Your task to perform on an android device: check out phone information Image 0: 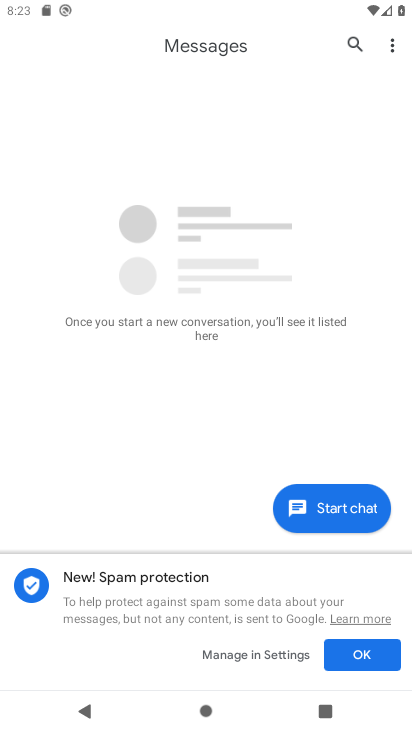
Step 0: press back button
Your task to perform on an android device: check out phone information Image 1: 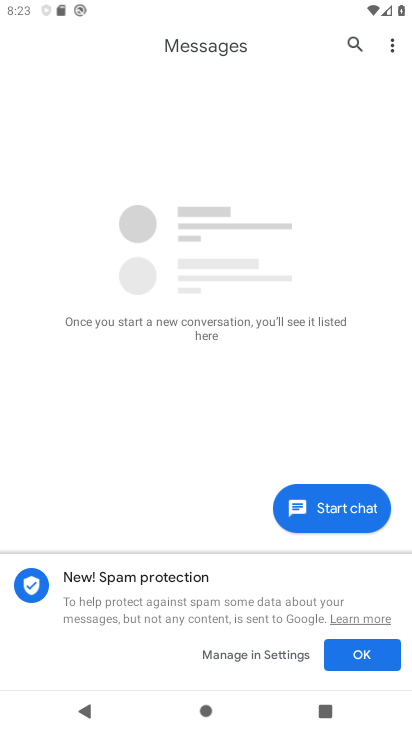
Step 1: press back button
Your task to perform on an android device: check out phone information Image 2: 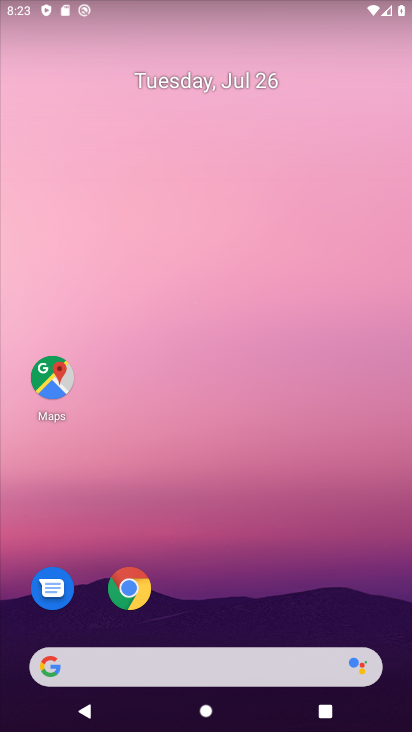
Step 2: click (224, 149)
Your task to perform on an android device: check out phone information Image 3: 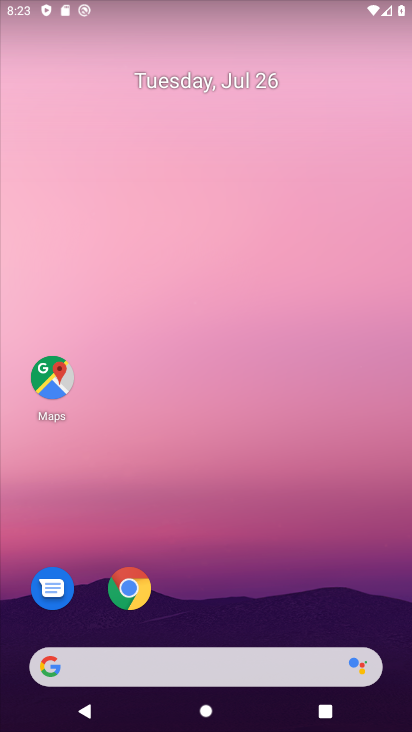
Step 3: drag from (214, 604) to (210, 122)
Your task to perform on an android device: check out phone information Image 4: 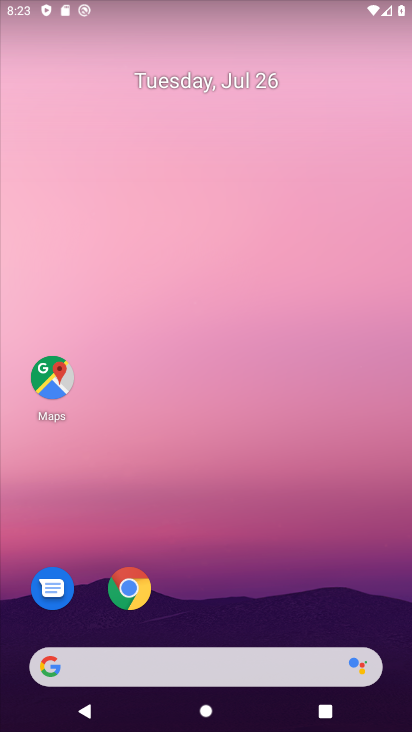
Step 4: drag from (217, 507) to (181, 113)
Your task to perform on an android device: check out phone information Image 5: 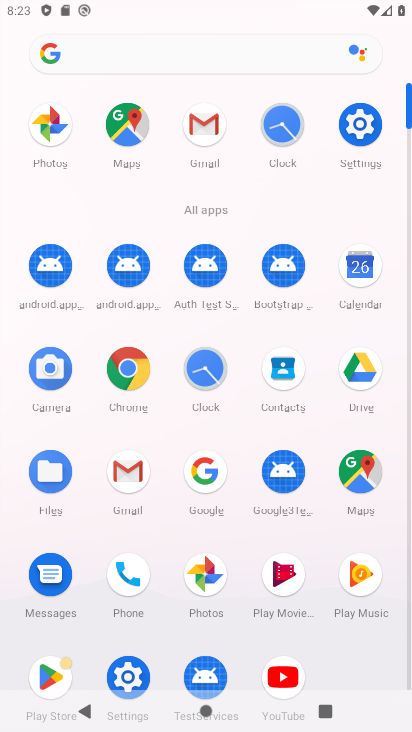
Step 5: drag from (254, 499) to (246, 67)
Your task to perform on an android device: check out phone information Image 6: 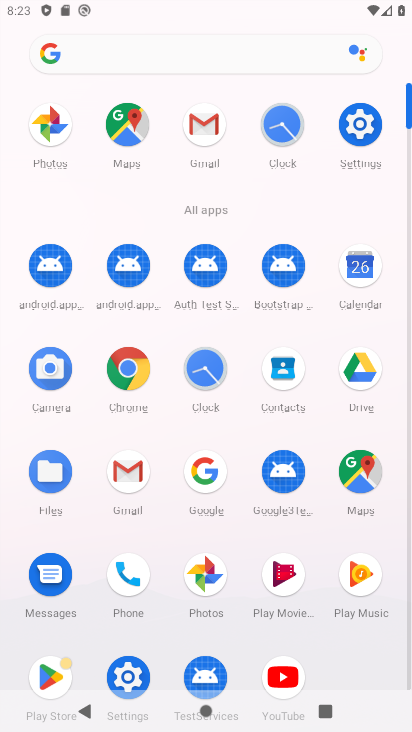
Step 6: click (356, 127)
Your task to perform on an android device: check out phone information Image 7: 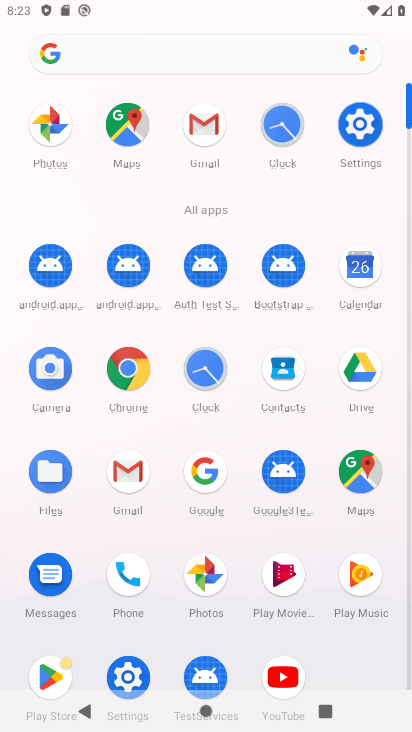
Step 7: click (359, 130)
Your task to perform on an android device: check out phone information Image 8: 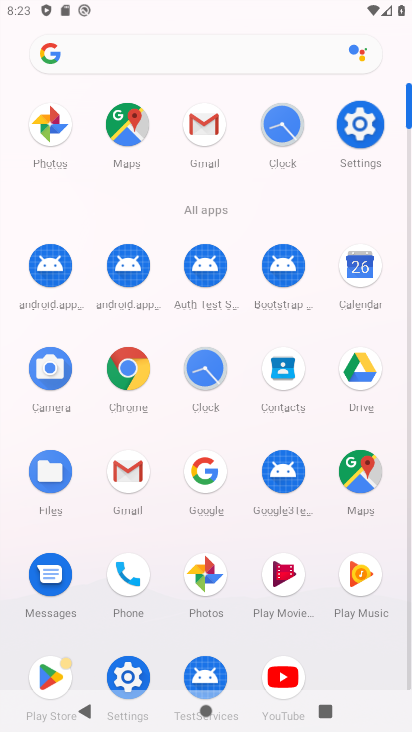
Step 8: click (365, 136)
Your task to perform on an android device: check out phone information Image 9: 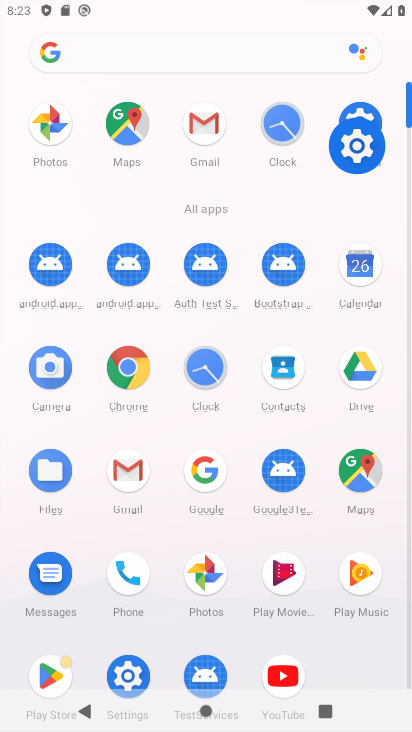
Step 9: click (366, 133)
Your task to perform on an android device: check out phone information Image 10: 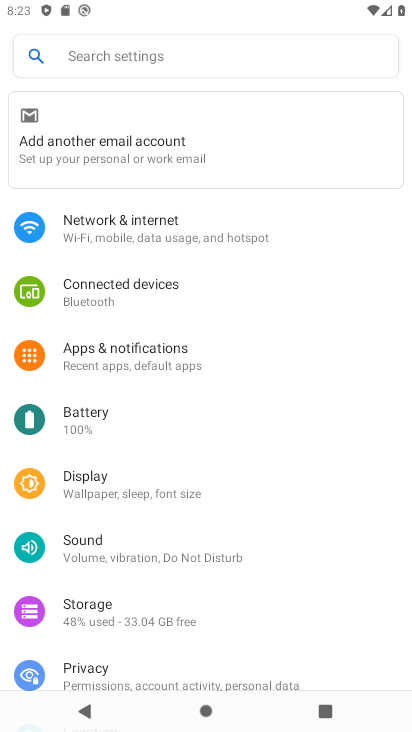
Step 10: drag from (179, 511) to (175, 216)
Your task to perform on an android device: check out phone information Image 11: 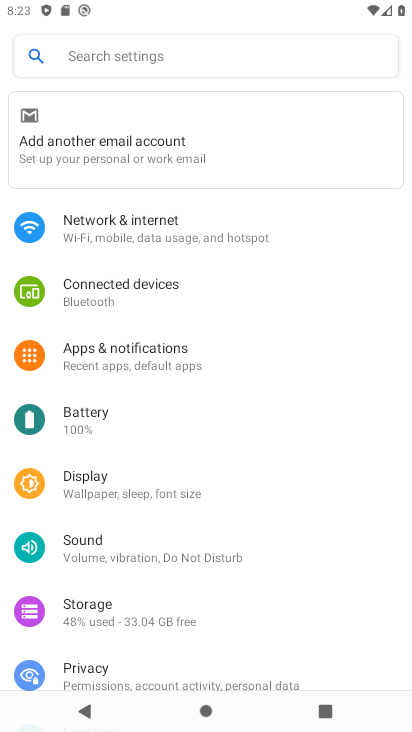
Step 11: drag from (169, 504) to (111, 176)
Your task to perform on an android device: check out phone information Image 12: 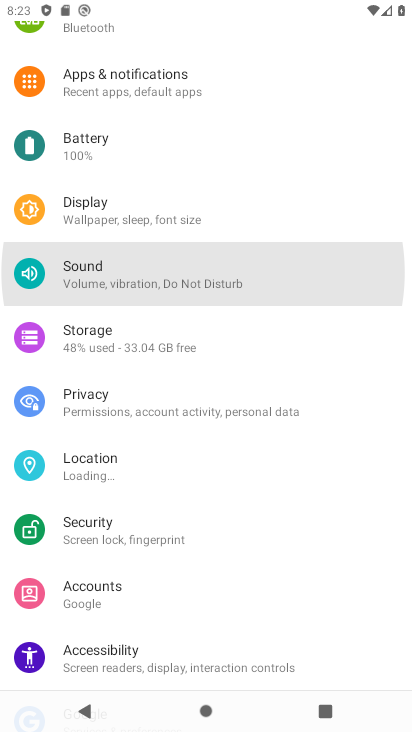
Step 12: drag from (143, 421) to (143, 210)
Your task to perform on an android device: check out phone information Image 13: 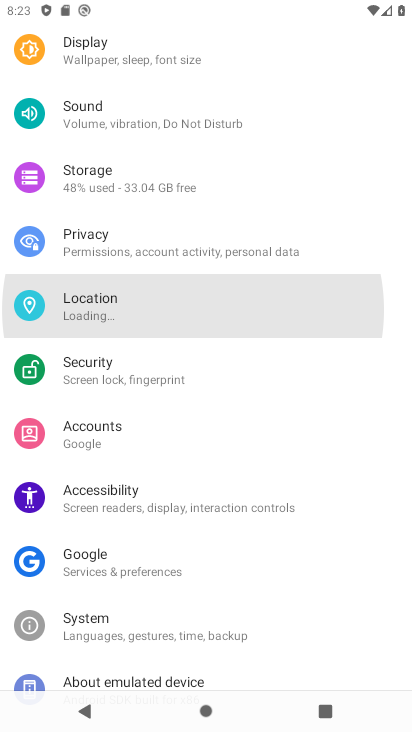
Step 13: drag from (169, 396) to (149, 204)
Your task to perform on an android device: check out phone information Image 14: 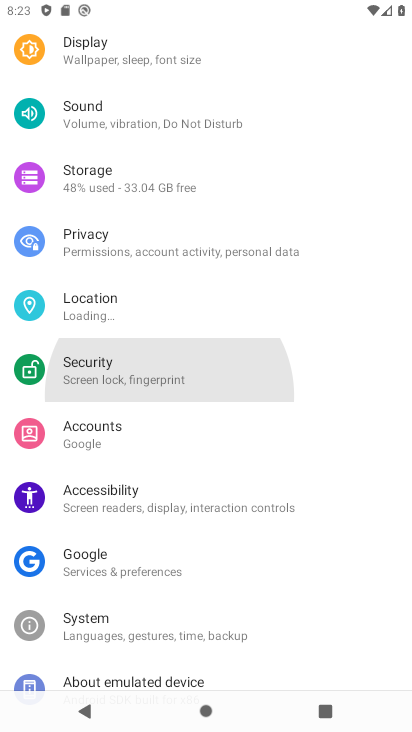
Step 14: drag from (180, 568) to (170, 233)
Your task to perform on an android device: check out phone information Image 15: 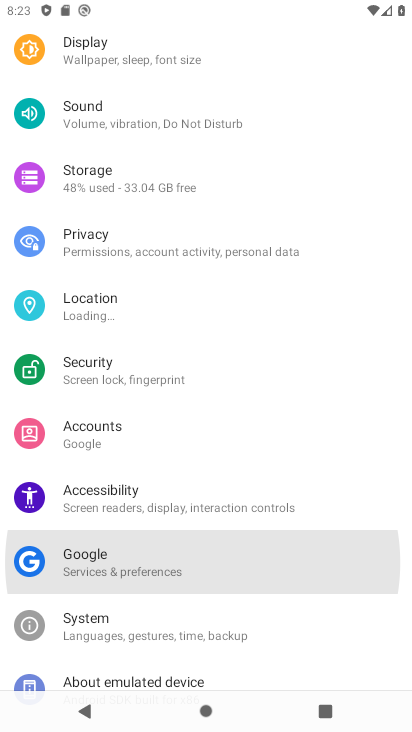
Step 15: drag from (213, 535) to (211, 234)
Your task to perform on an android device: check out phone information Image 16: 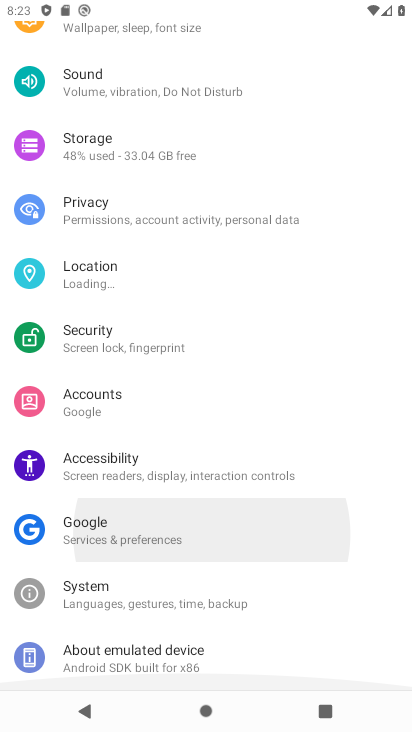
Step 16: drag from (178, 521) to (152, 348)
Your task to perform on an android device: check out phone information Image 17: 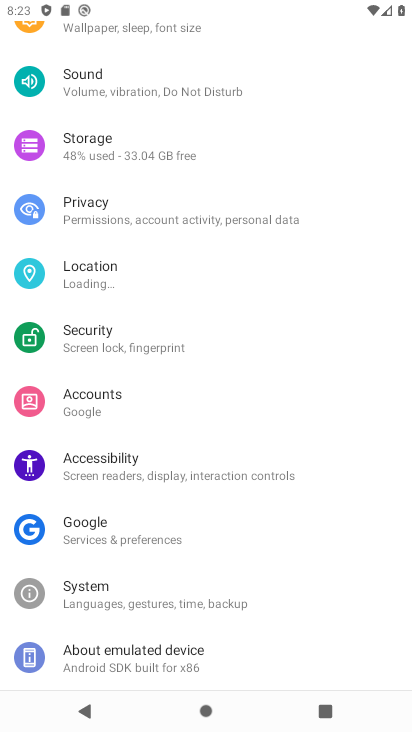
Step 17: click (106, 664)
Your task to perform on an android device: check out phone information Image 18: 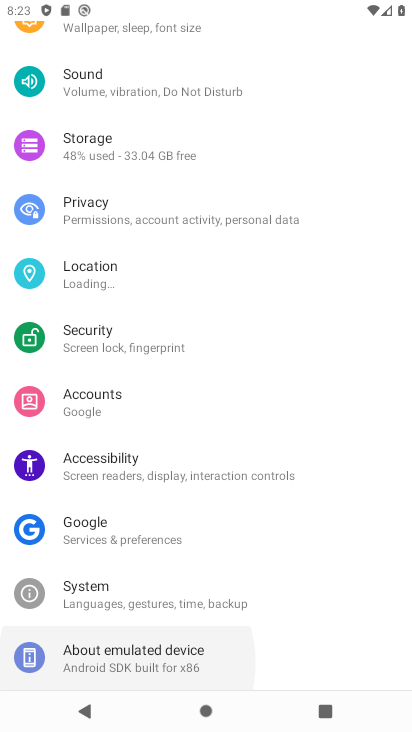
Step 18: click (106, 664)
Your task to perform on an android device: check out phone information Image 19: 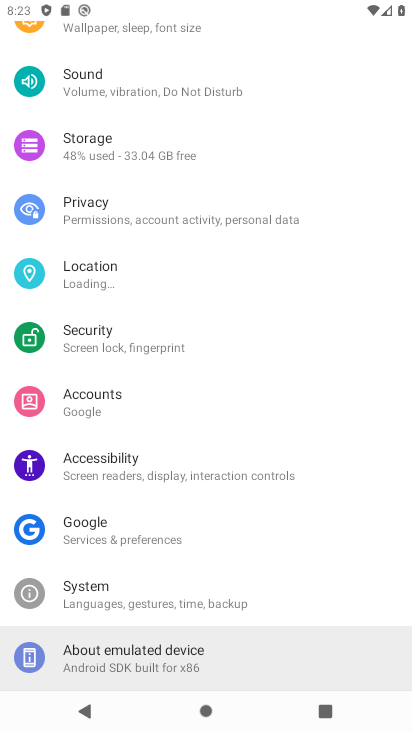
Step 19: click (106, 664)
Your task to perform on an android device: check out phone information Image 20: 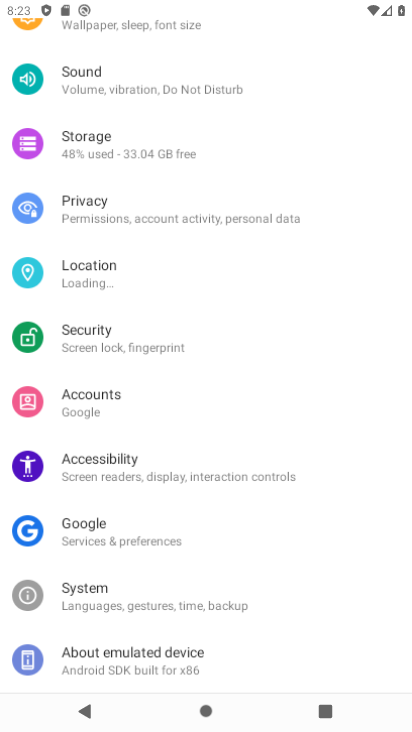
Step 20: click (107, 663)
Your task to perform on an android device: check out phone information Image 21: 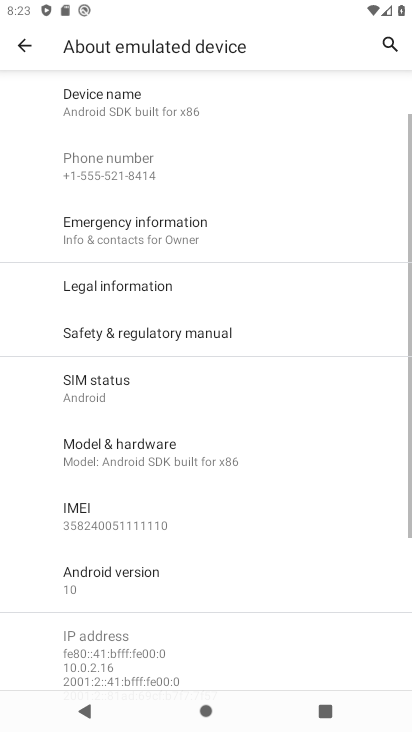
Step 21: task complete